Your task to perform on an android device: toggle data saver in the chrome app Image 0: 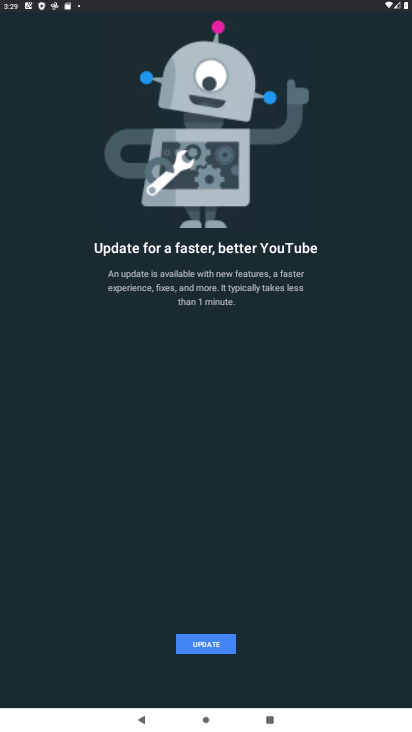
Step 0: press home button
Your task to perform on an android device: toggle data saver in the chrome app Image 1: 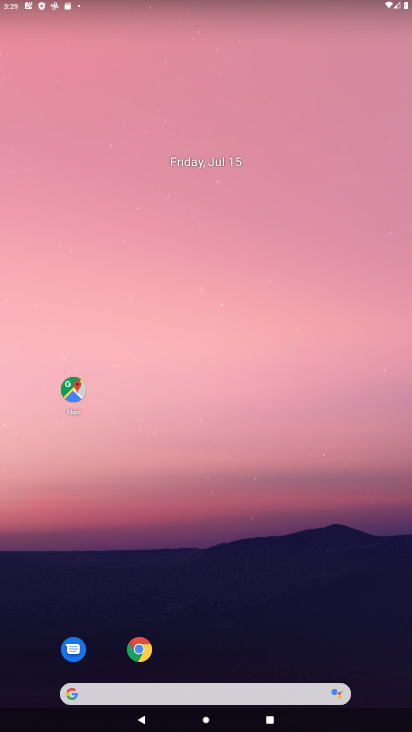
Step 1: drag from (320, 542) to (283, 135)
Your task to perform on an android device: toggle data saver in the chrome app Image 2: 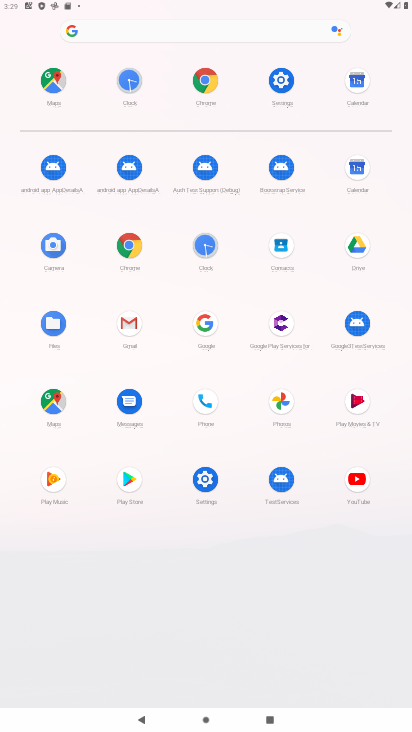
Step 2: click (128, 242)
Your task to perform on an android device: toggle data saver in the chrome app Image 3: 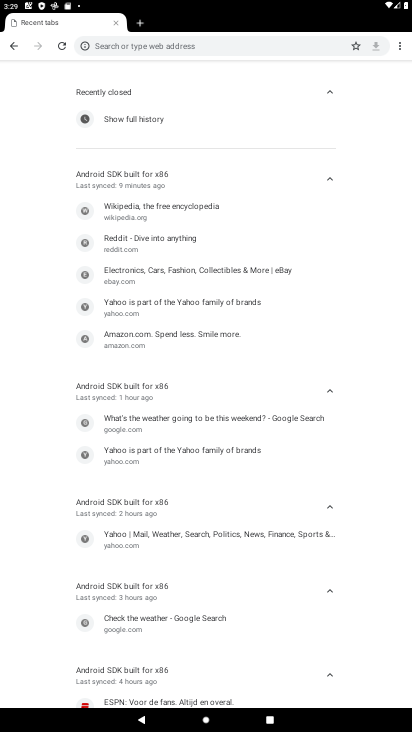
Step 3: drag from (404, 41) to (303, 216)
Your task to perform on an android device: toggle data saver in the chrome app Image 4: 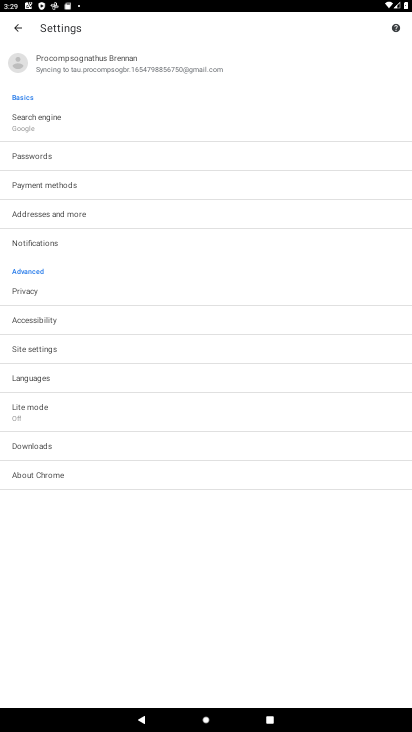
Step 4: click (67, 414)
Your task to perform on an android device: toggle data saver in the chrome app Image 5: 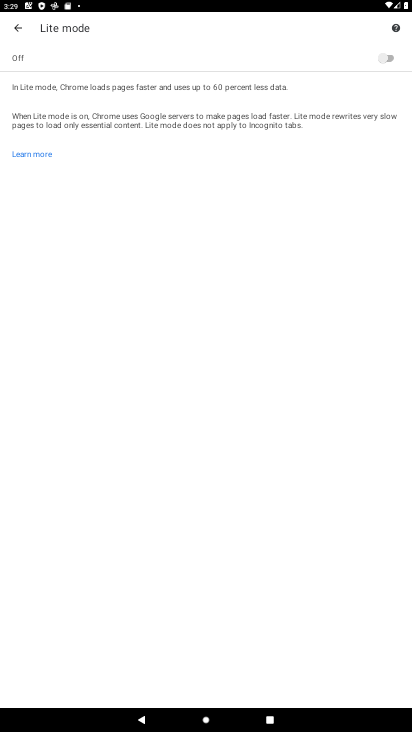
Step 5: click (387, 60)
Your task to perform on an android device: toggle data saver in the chrome app Image 6: 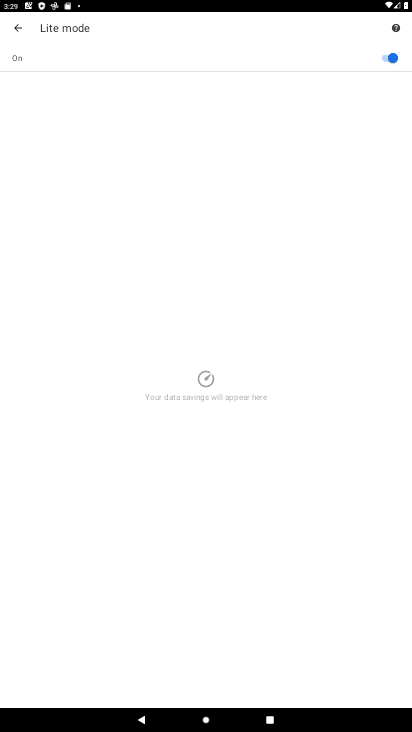
Step 6: task complete